Your task to perform on an android device: View the shopping cart on target. Search for "asus zenbook" on target, select the first entry, and add it to the cart. Image 0: 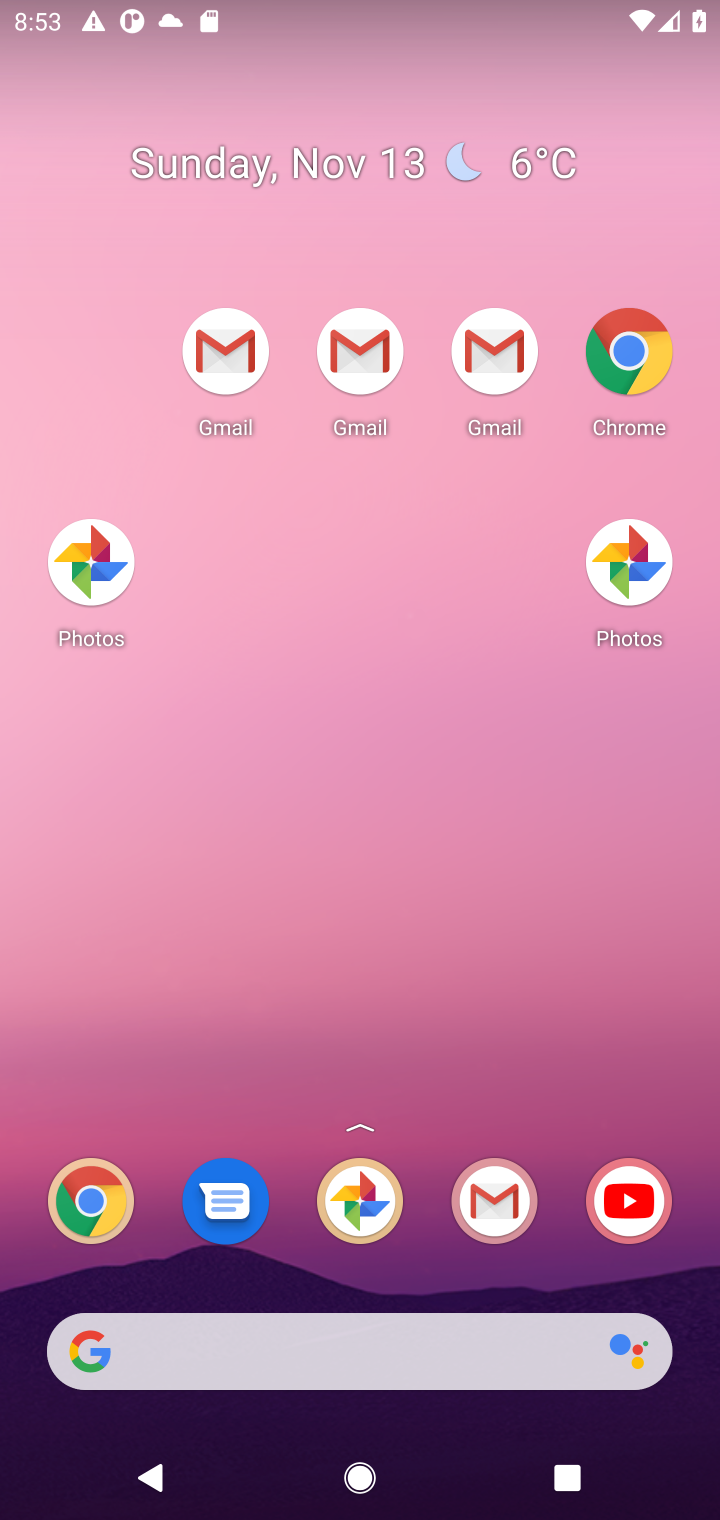
Step 0: drag from (432, 1248) to (266, 85)
Your task to perform on an android device: View the shopping cart on target. Search for "asus zenbook" on target, select the first entry, and add it to the cart. Image 1: 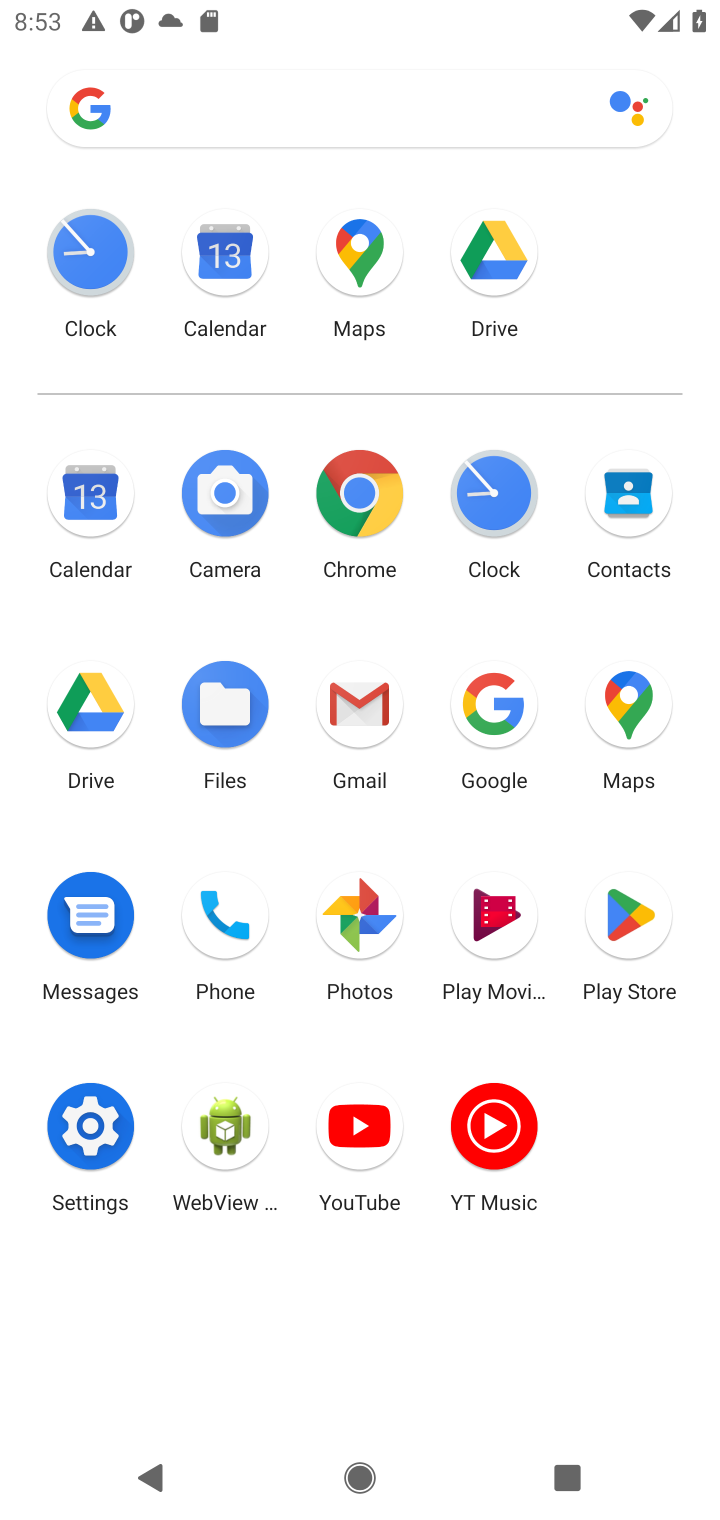
Step 1: click (362, 506)
Your task to perform on an android device: View the shopping cart on target. Search for "asus zenbook" on target, select the first entry, and add it to the cart. Image 2: 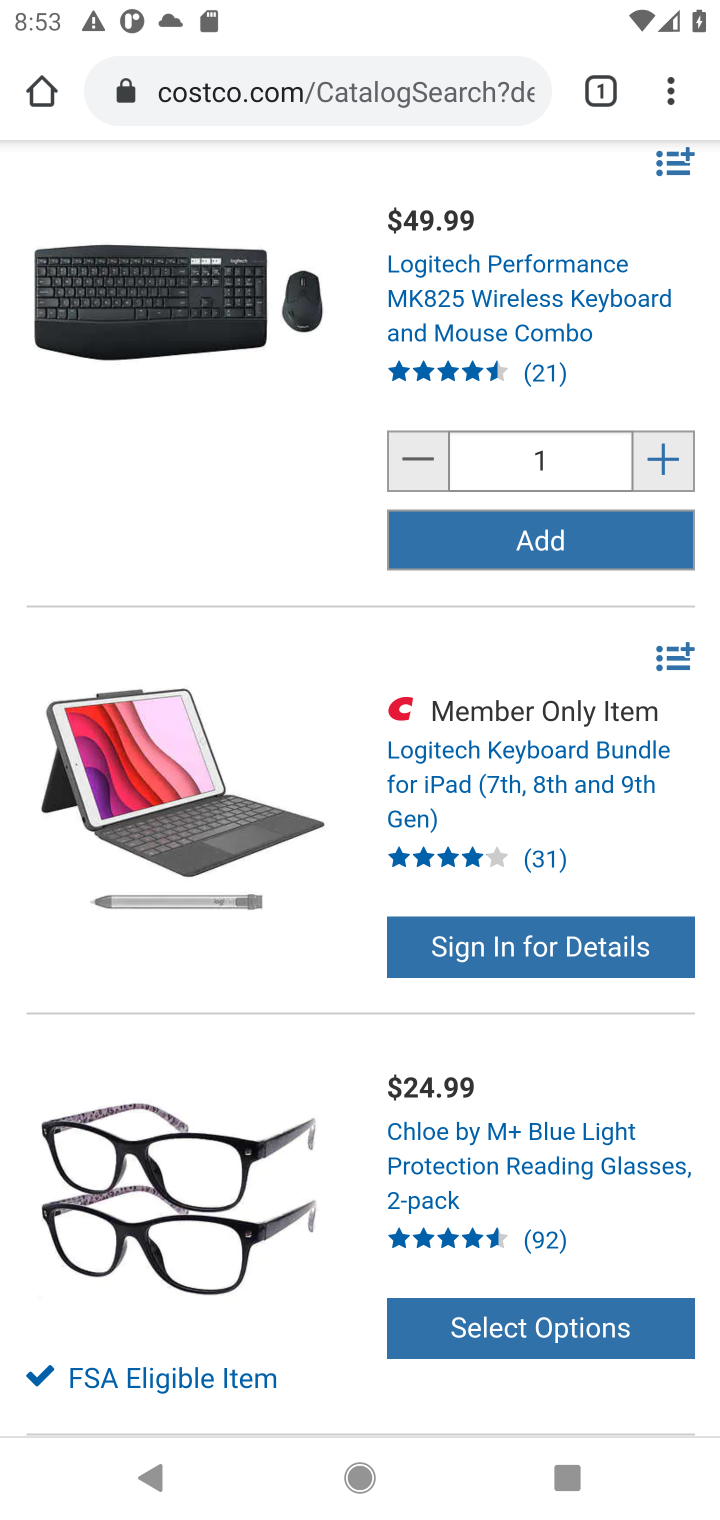
Step 2: click (426, 87)
Your task to perform on an android device: View the shopping cart on target. Search for "asus zenbook" on target, select the first entry, and add it to the cart. Image 3: 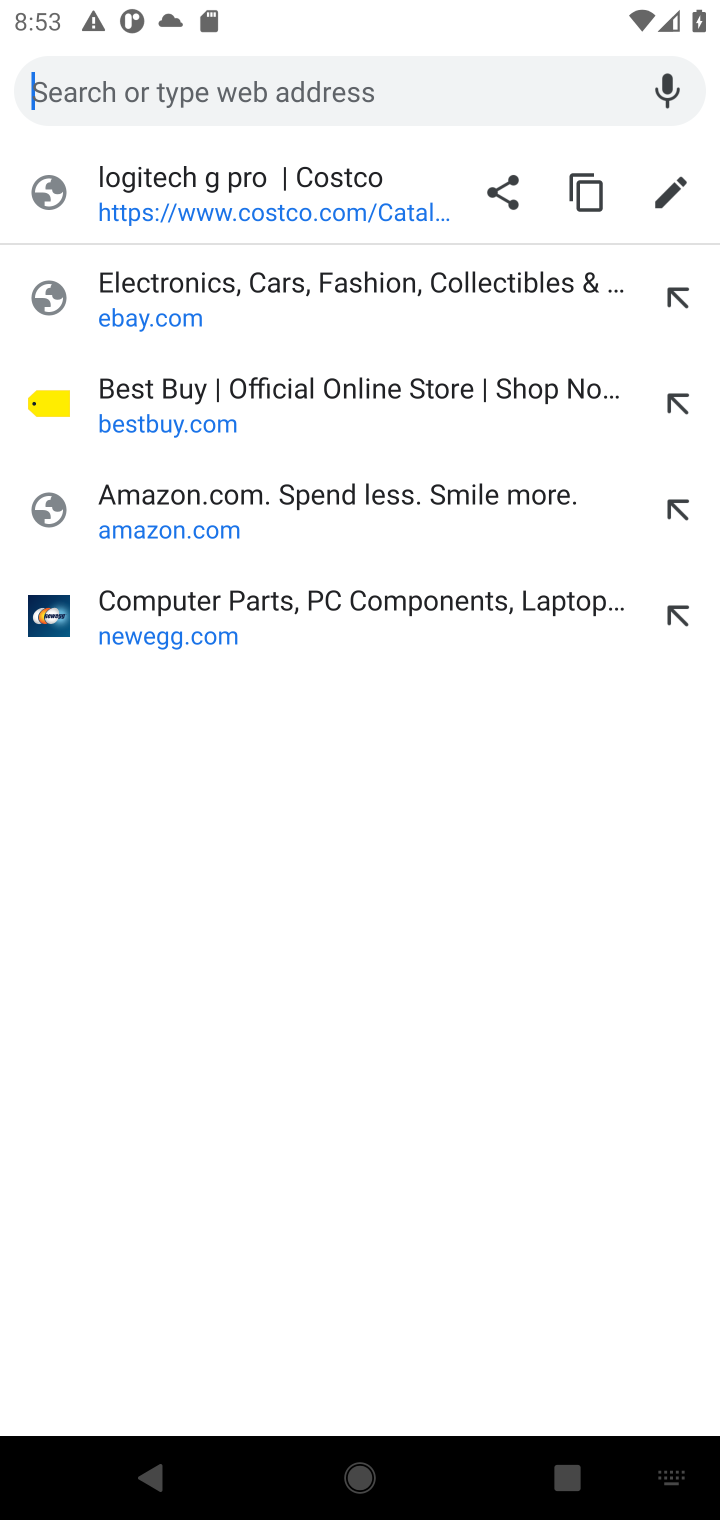
Step 3: type "target.com"
Your task to perform on an android device: View the shopping cart on target. Search for "asus zenbook" on target, select the first entry, and add it to the cart. Image 4: 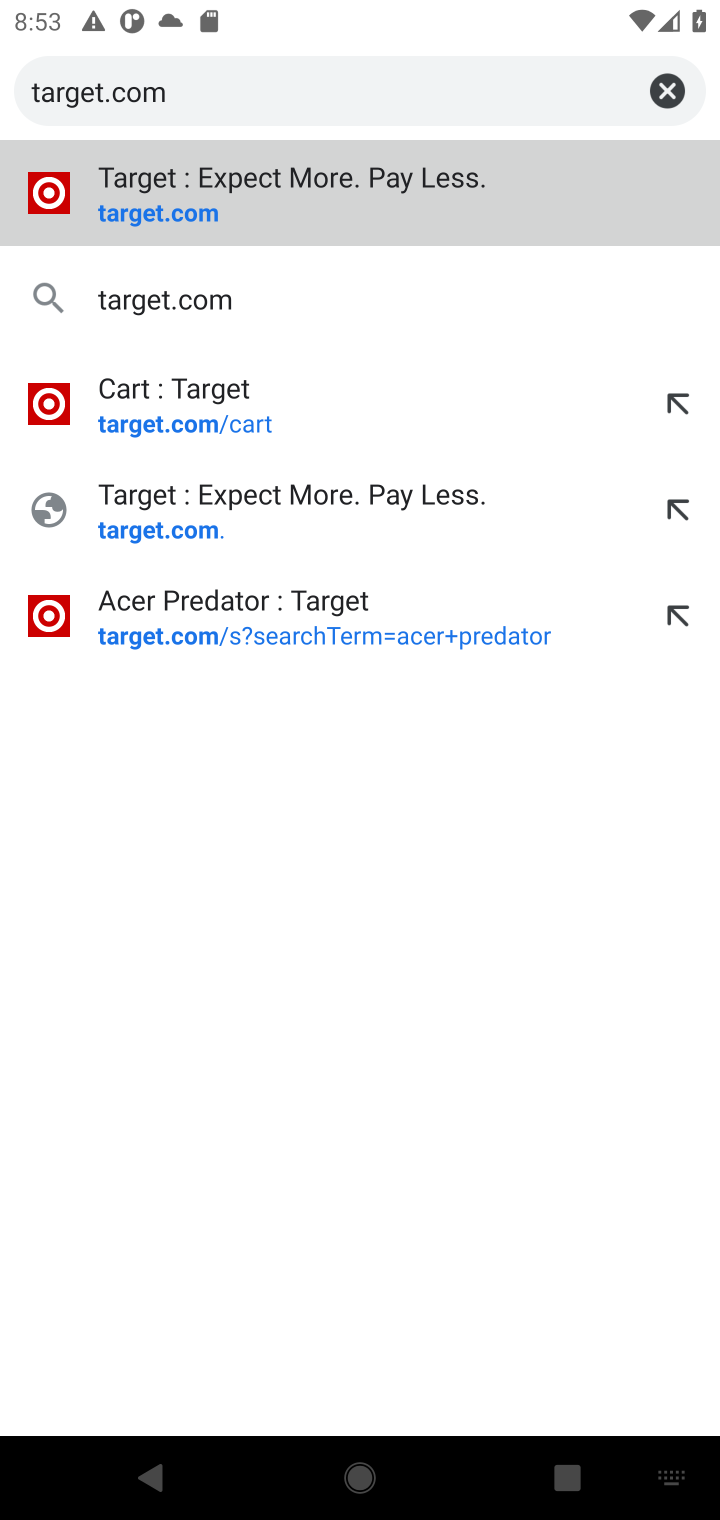
Step 4: press enter
Your task to perform on an android device: View the shopping cart on target. Search for "asus zenbook" on target, select the first entry, and add it to the cart. Image 5: 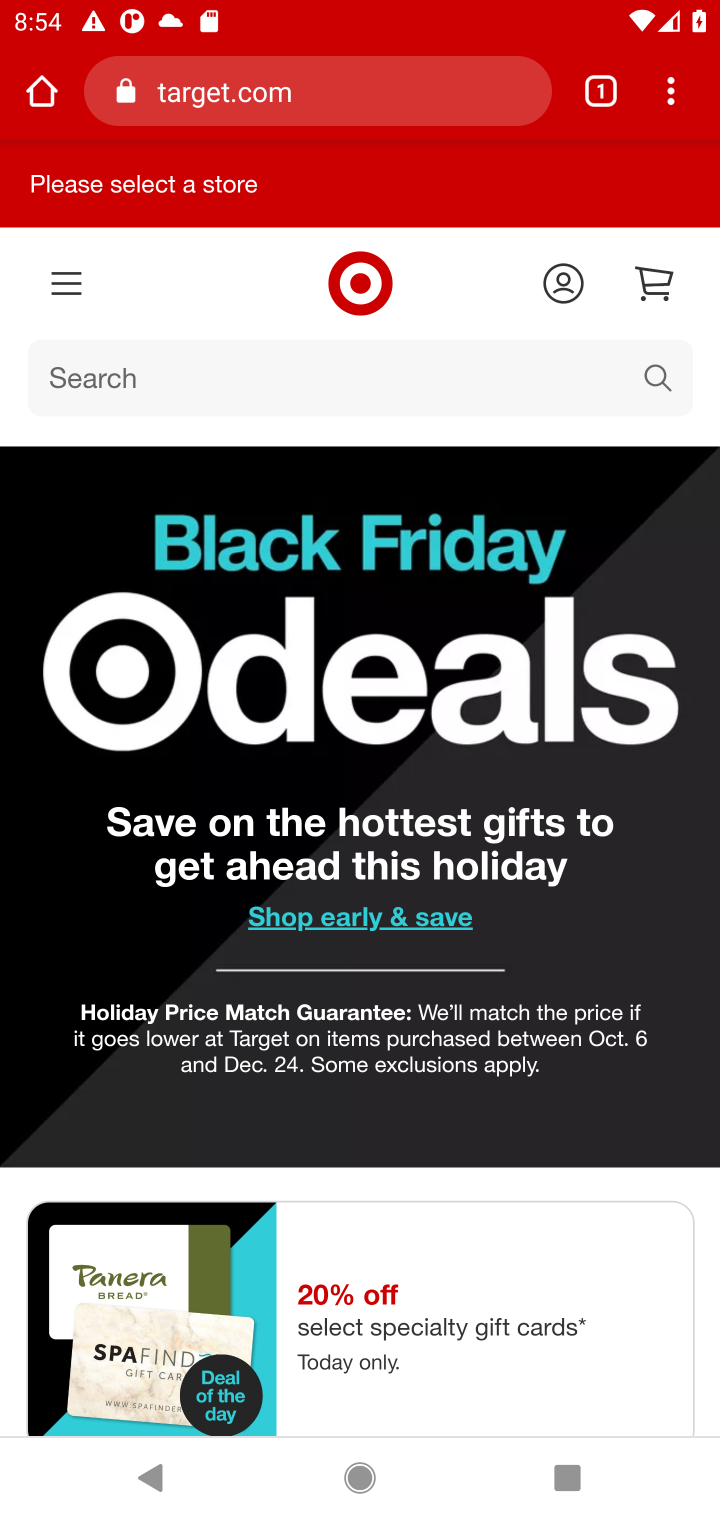
Step 5: click (657, 277)
Your task to perform on an android device: View the shopping cart on target. Search for "asus zenbook" on target, select the first entry, and add it to the cart. Image 6: 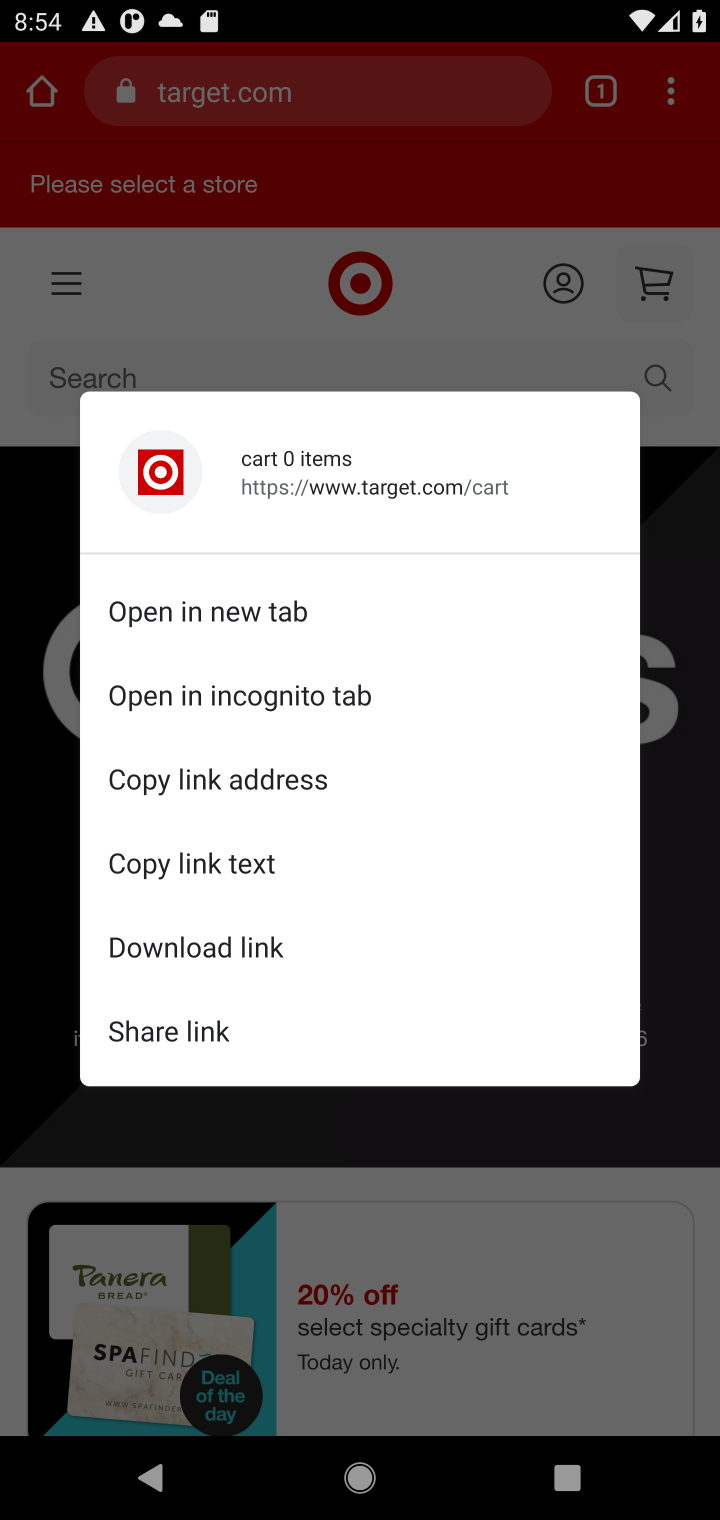
Step 6: click (657, 277)
Your task to perform on an android device: View the shopping cart on target. Search for "asus zenbook" on target, select the first entry, and add it to the cart. Image 7: 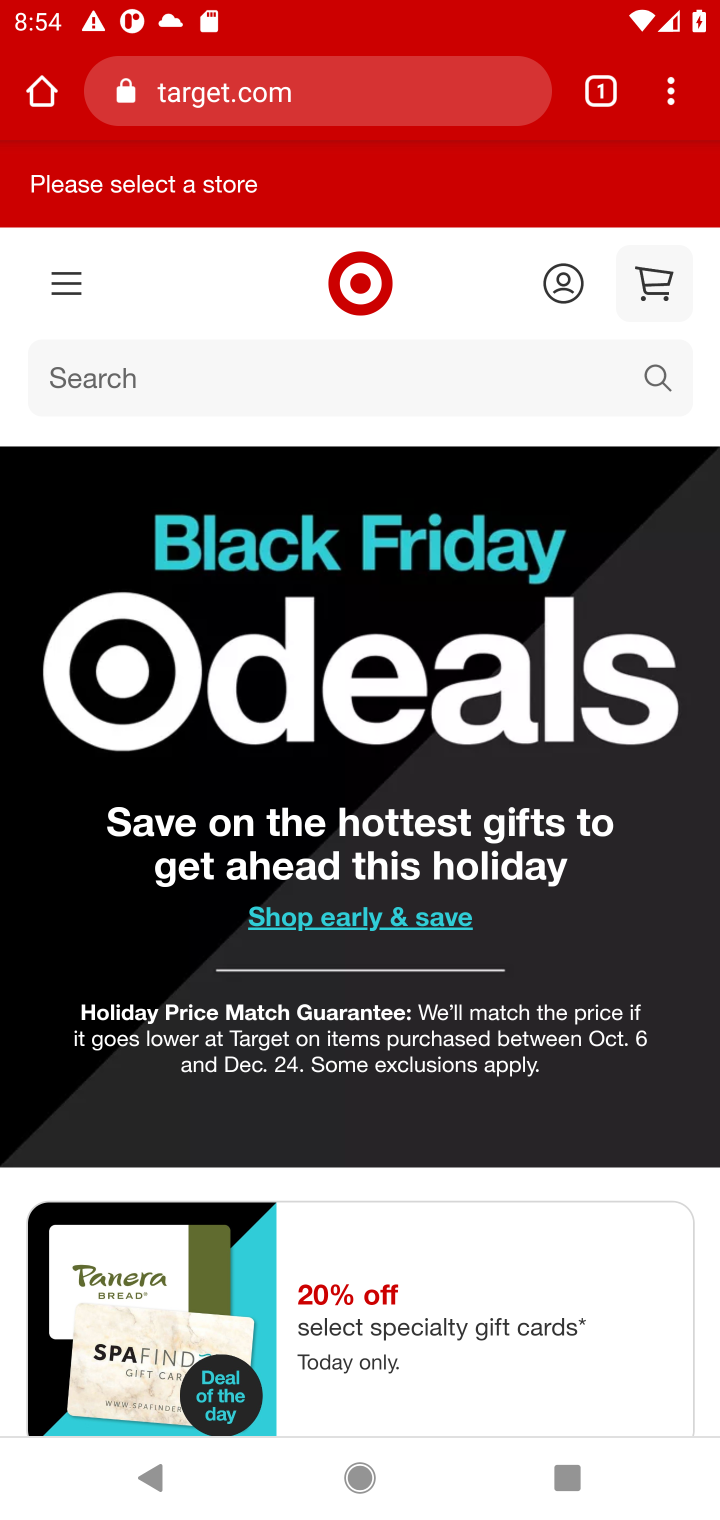
Step 7: click (657, 277)
Your task to perform on an android device: View the shopping cart on target. Search for "asus zenbook" on target, select the first entry, and add it to the cart. Image 8: 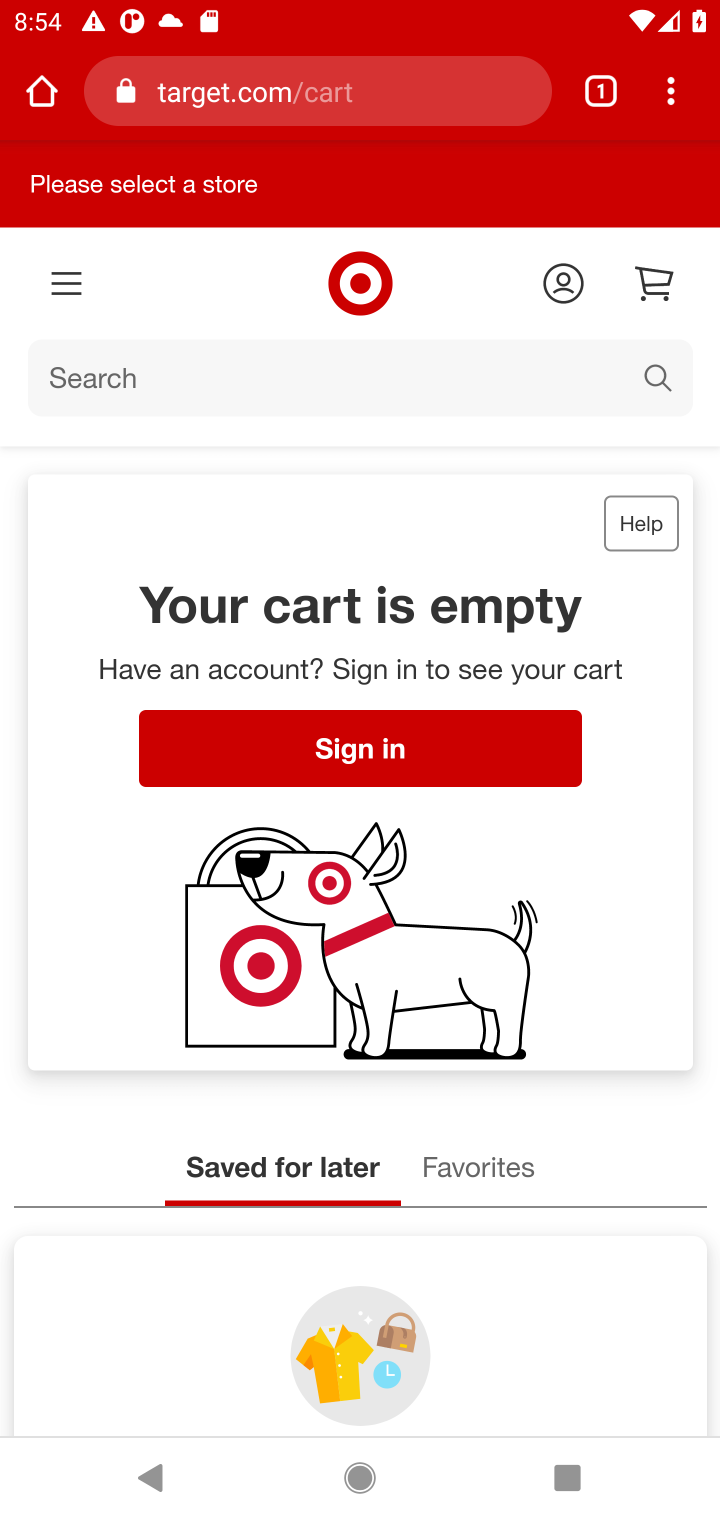
Step 8: click (388, 389)
Your task to perform on an android device: View the shopping cart on target. Search for "asus zenbook" on target, select the first entry, and add it to the cart. Image 9: 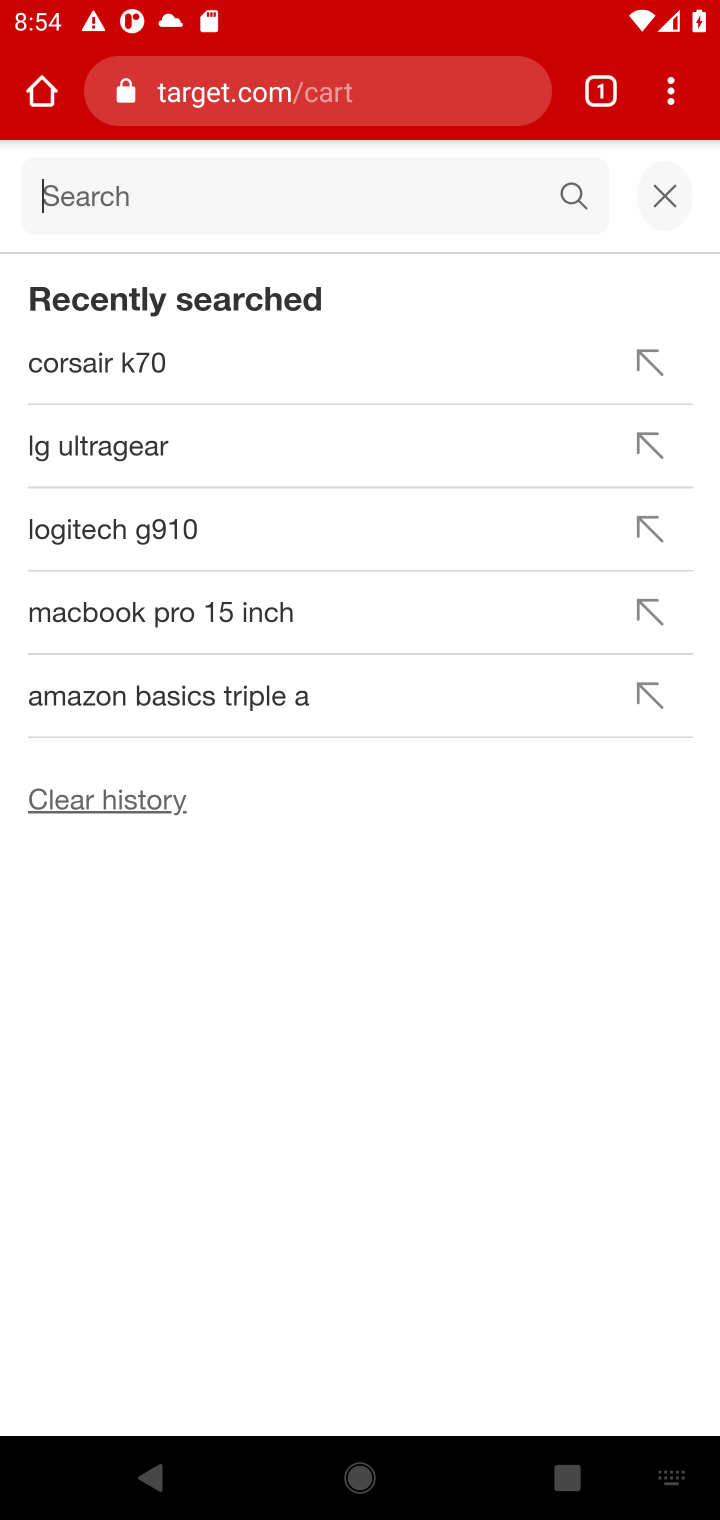
Step 9: type "asus zenbook"
Your task to perform on an android device: View the shopping cart on target. Search for "asus zenbook" on target, select the first entry, and add it to the cart. Image 10: 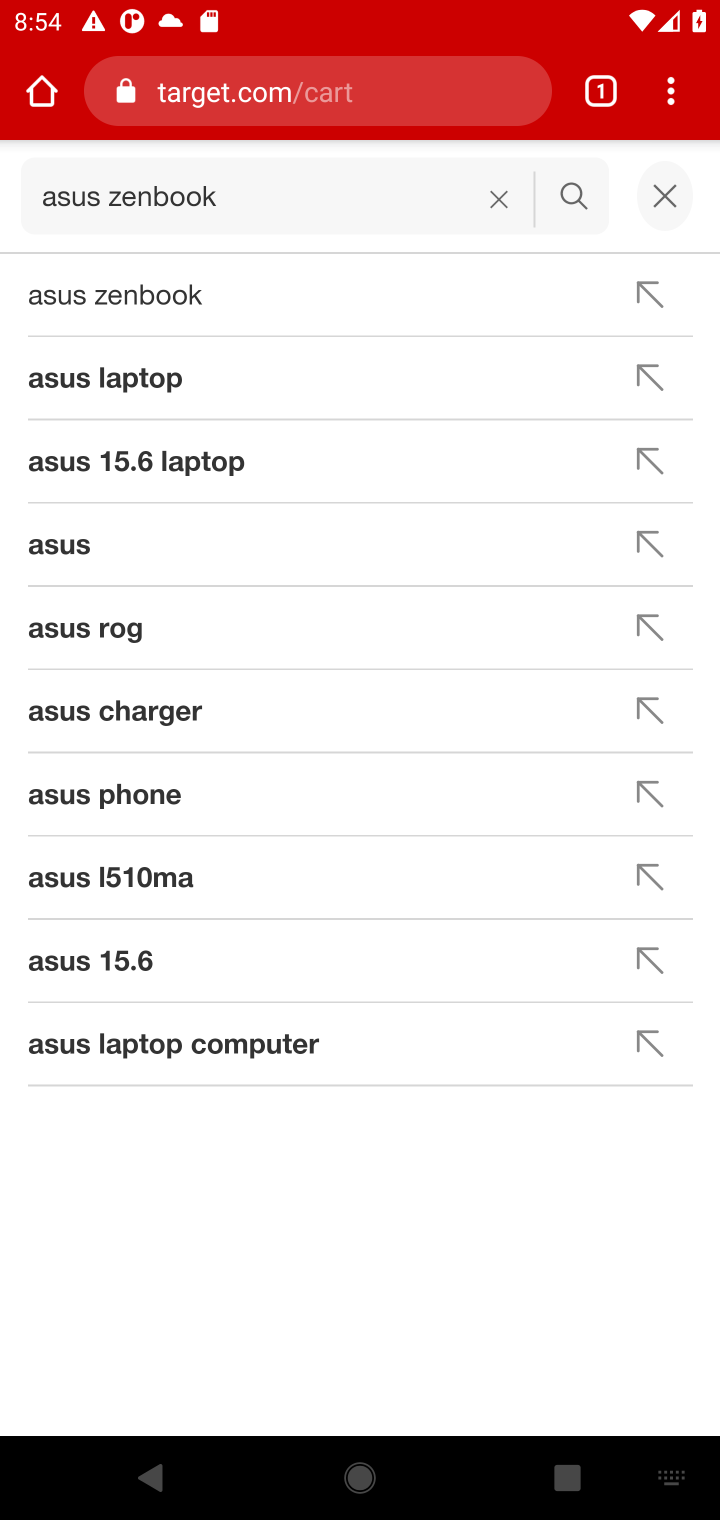
Step 10: press enter
Your task to perform on an android device: View the shopping cart on target. Search for "asus zenbook" on target, select the first entry, and add it to the cart. Image 11: 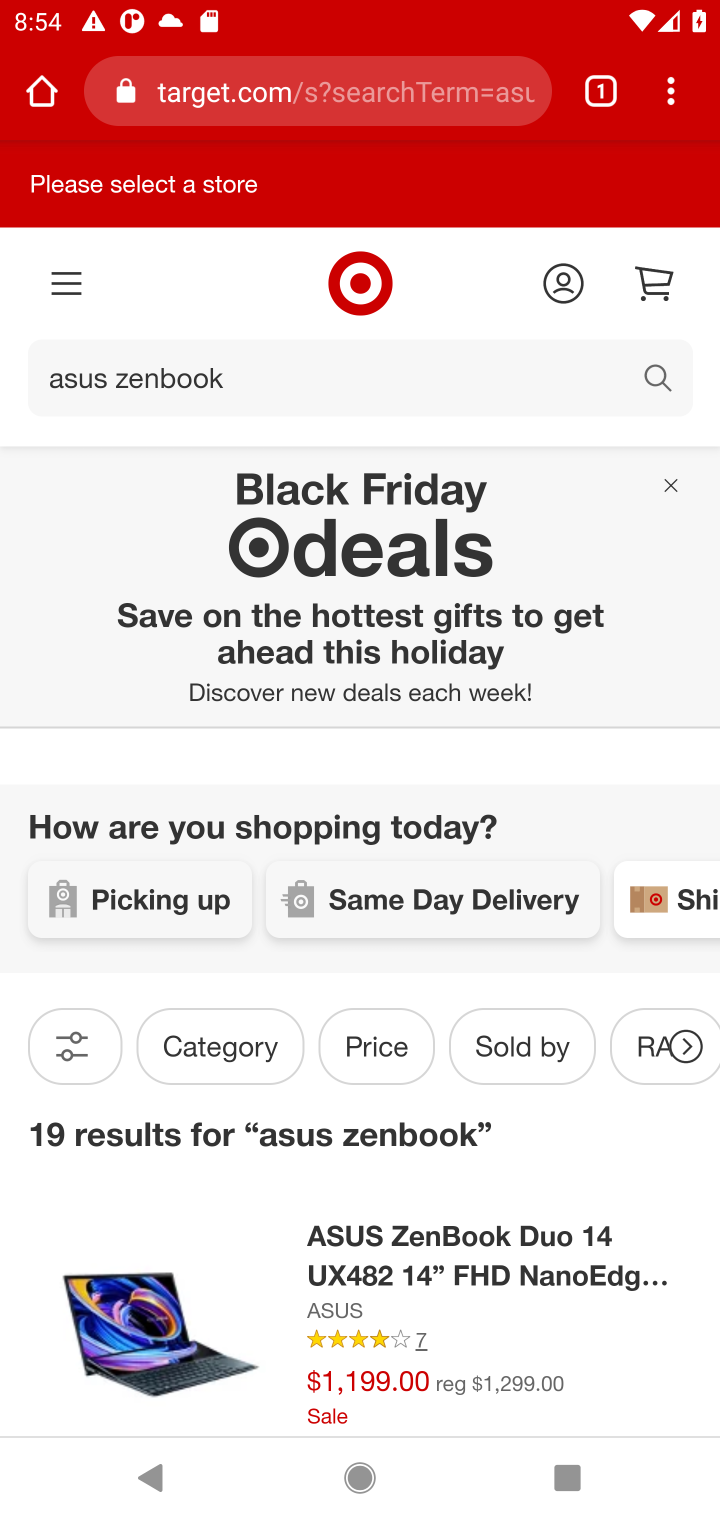
Step 11: drag from (327, 1204) to (392, 582)
Your task to perform on an android device: View the shopping cart on target. Search for "asus zenbook" on target, select the first entry, and add it to the cart. Image 12: 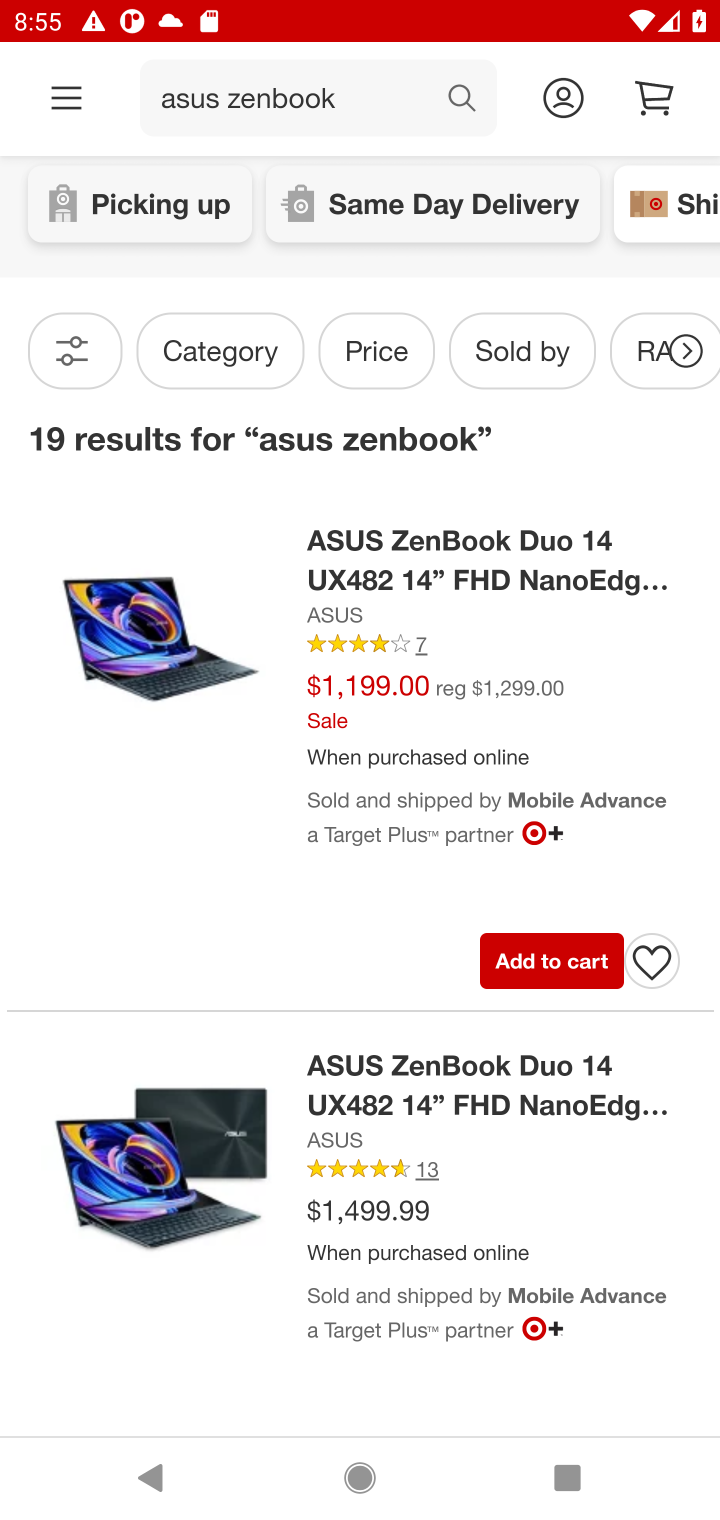
Step 12: click (523, 961)
Your task to perform on an android device: View the shopping cart on target. Search for "asus zenbook" on target, select the first entry, and add it to the cart. Image 13: 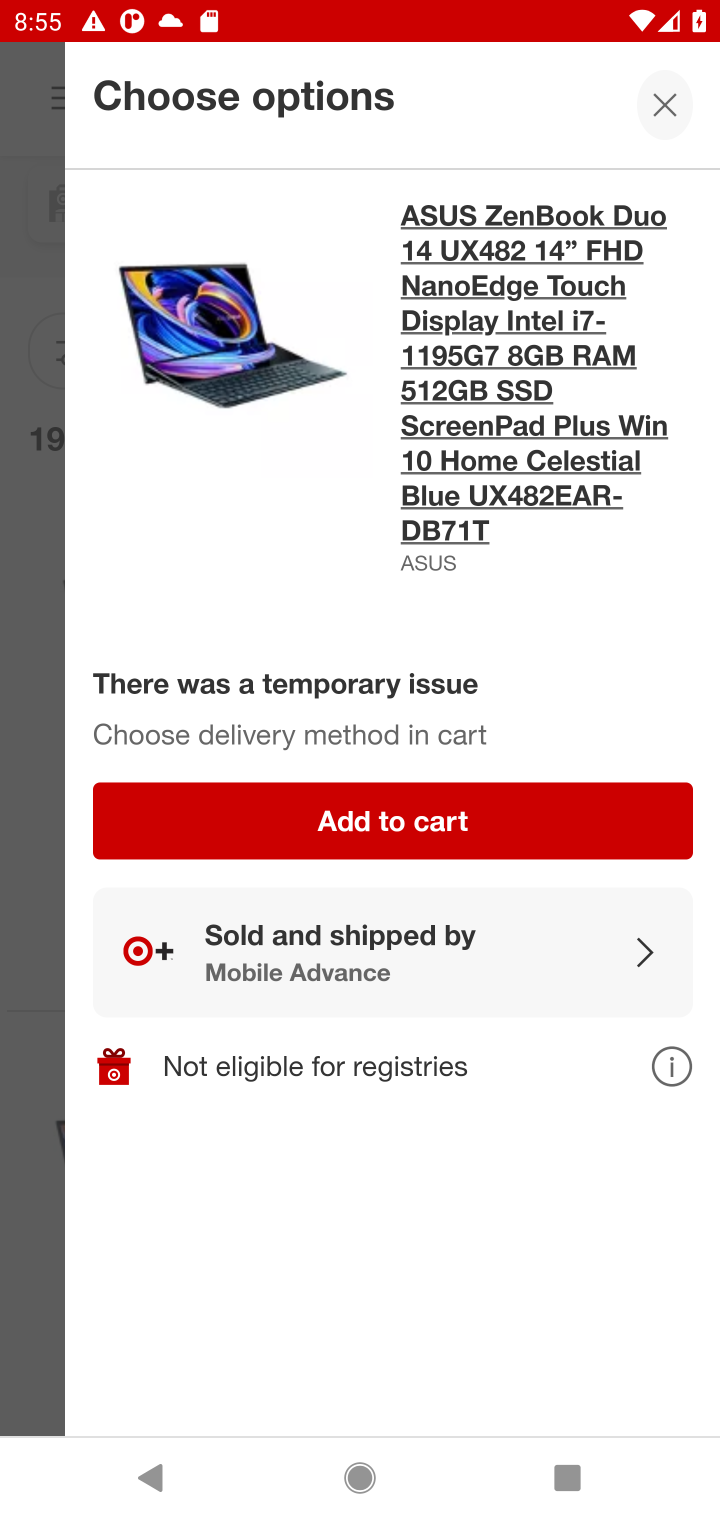
Step 13: click (482, 842)
Your task to perform on an android device: View the shopping cart on target. Search for "asus zenbook" on target, select the first entry, and add it to the cart. Image 14: 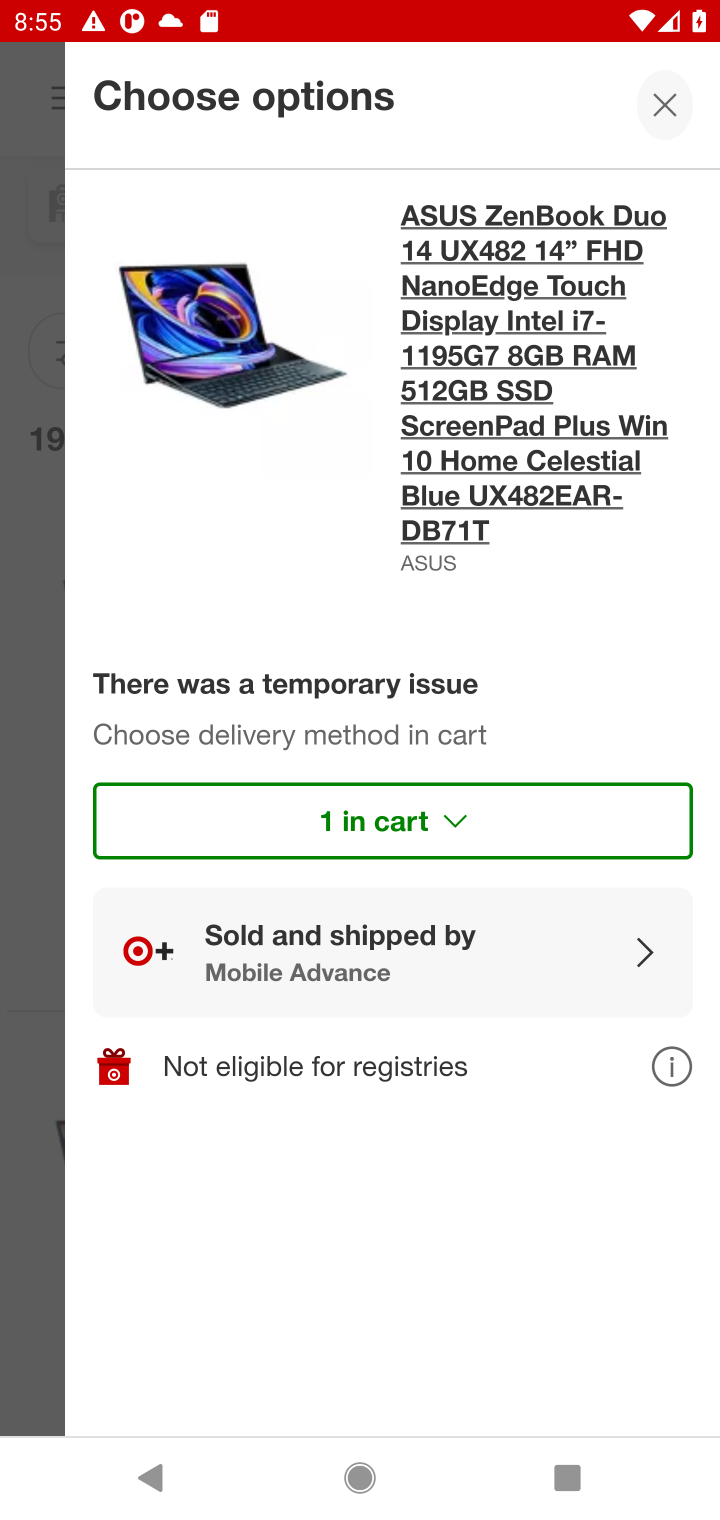
Step 14: task complete